Your task to perform on an android device: delete browsing data in the chrome app Image 0: 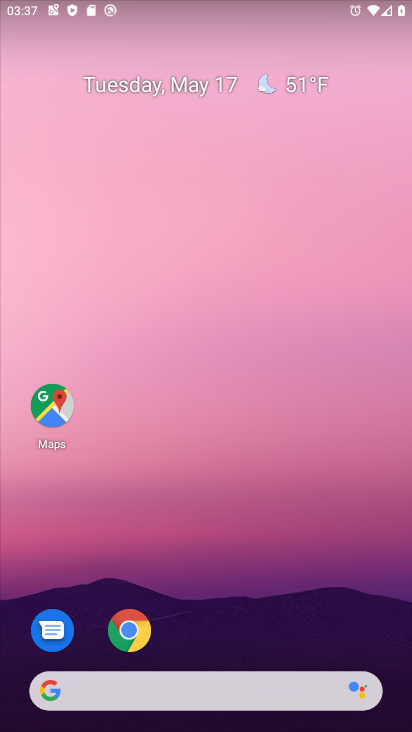
Step 0: click (114, 630)
Your task to perform on an android device: delete browsing data in the chrome app Image 1: 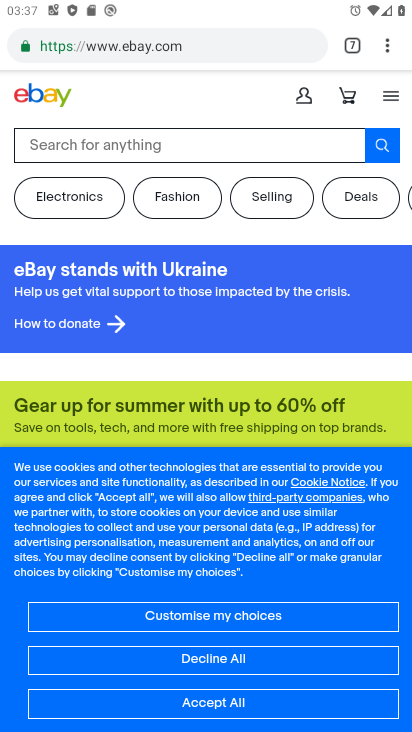
Step 1: drag from (385, 47) to (225, 258)
Your task to perform on an android device: delete browsing data in the chrome app Image 2: 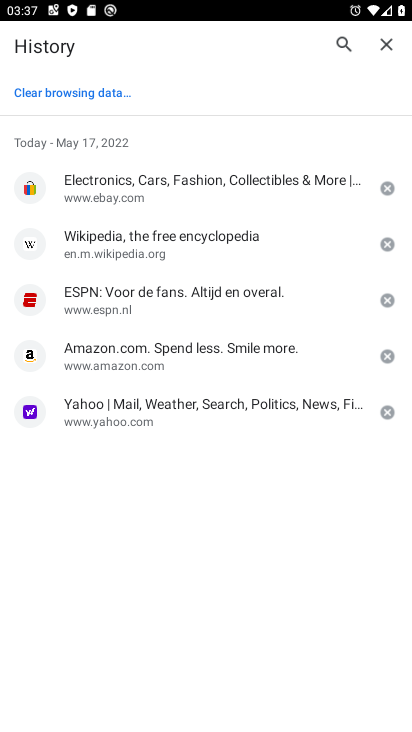
Step 2: click (38, 95)
Your task to perform on an android device: delete browsing data in the chrome app Image 3: 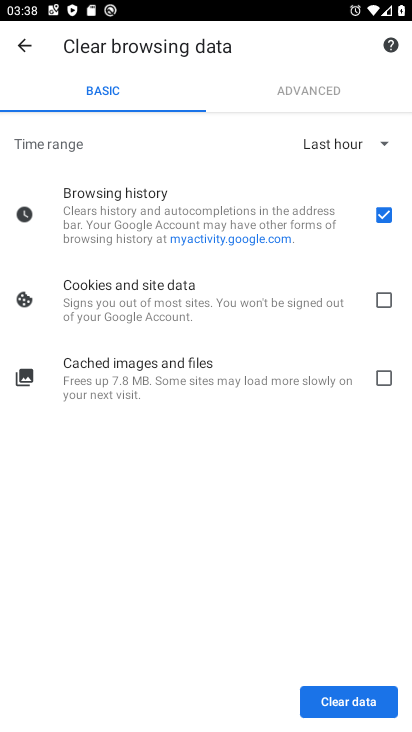
Step 3: click (339, 702)
Your task to perform on an android device: delete browsing data in the chrome app Image 4: 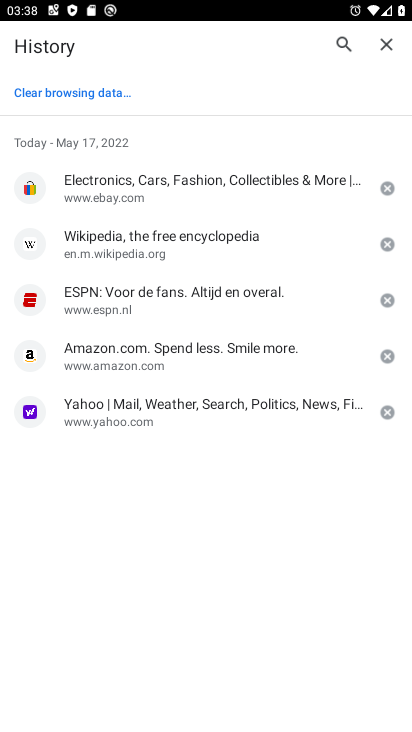
Step 4: task complete